Your task to perform on an android device: Toggle the flashlight Image 0: 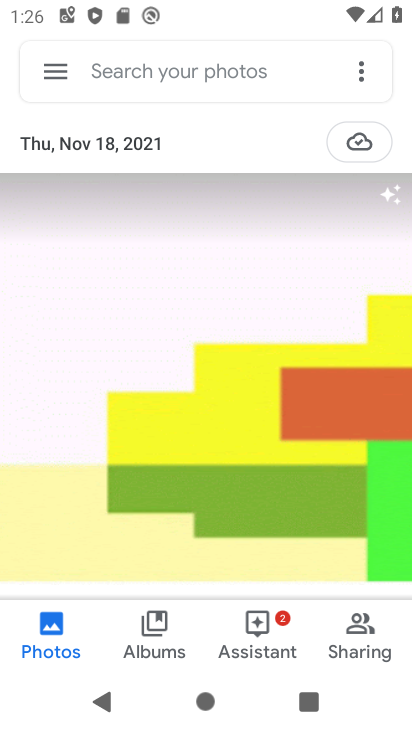
Step 0: press home button
Your task to perform on an android device: Toggle the flashlight Image 1: 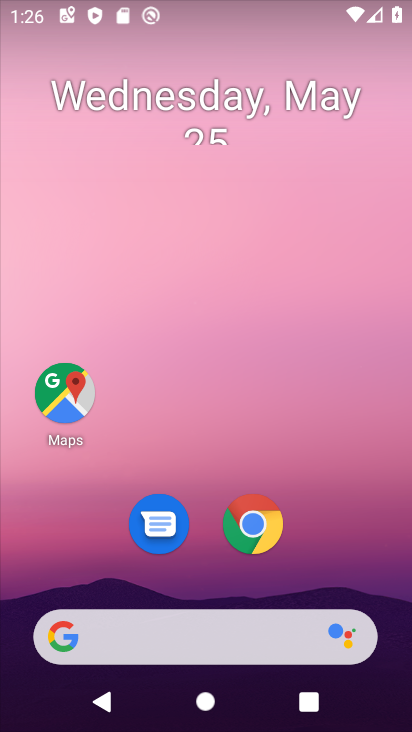
Step 1: drag from (247, 464) to (273, 36)
Your task to perform on an android device: Toggle the flashlight Image 2: 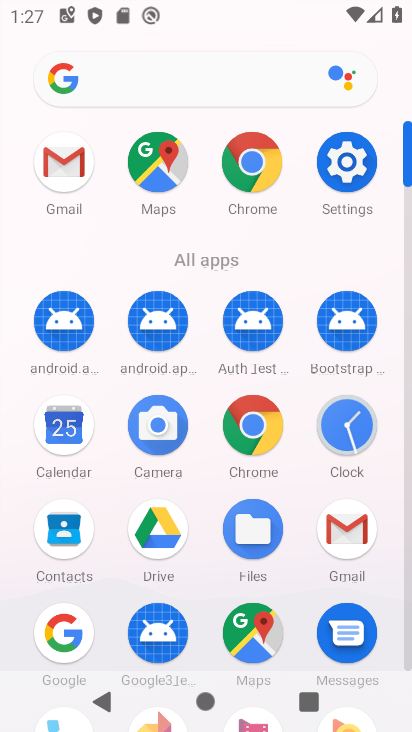
Step 2: click (341, 153)
Your task to perform on an android device: Toggle the flashlight Image 3: 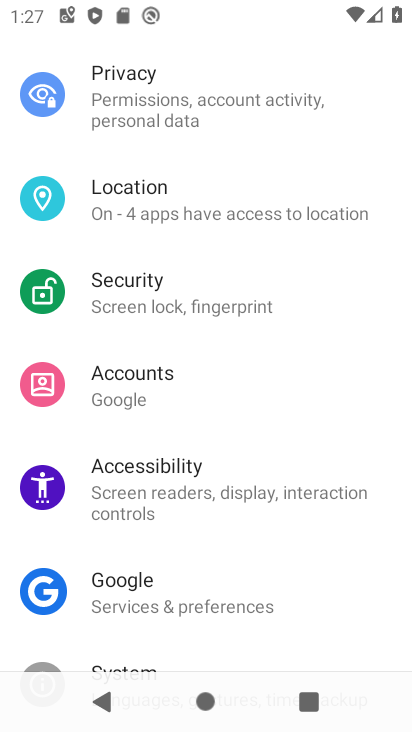
Step 3: drag from (257, 169) to (198, 654)
Your task to perform on an android device: Toggle the flashlight Image 4: 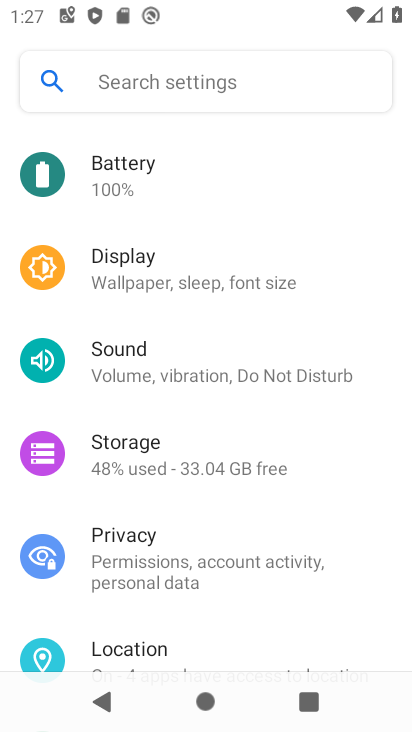
Step 4: drag from (226, 197) to (206, 609)
Your task to perform on an android device: Toggle the flashlight Image 5: 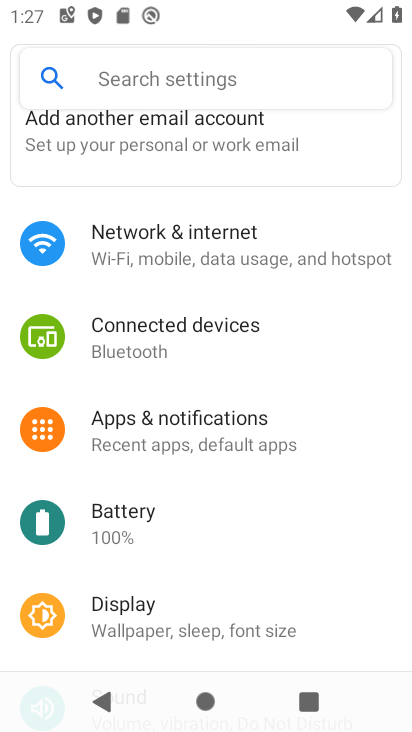
Step 5: drag from (219, 234) to (204, 511)
Your task to perform on an android device: Toggle the flashlight Image 6: 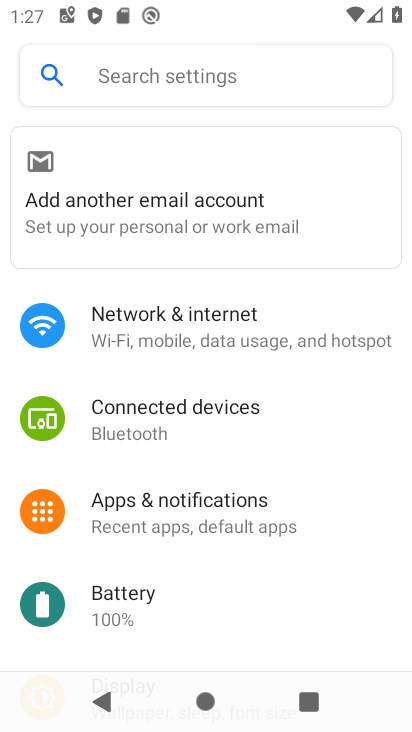
Step 6: click (231, 65)
Your task to perform on an android device: Toggle the flashlight Image 7: 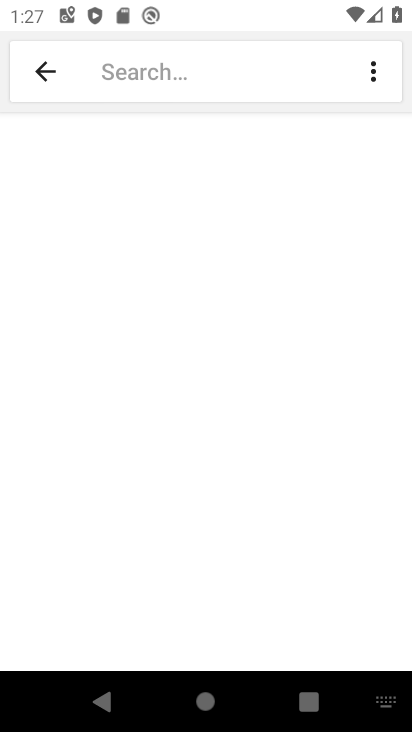
Step 7: type "Flashlight"
Your task to perform on an android device: Toggle the flashlight Image 8: 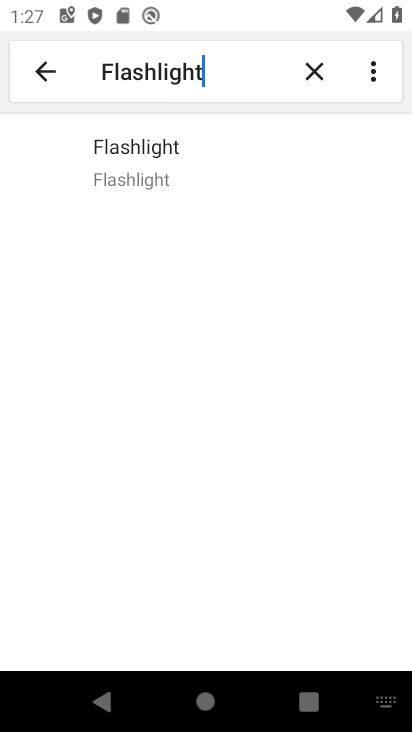
Step 8: click (149, 157)
Your task to perform on an android device: Toggle the flashlight Image 9: 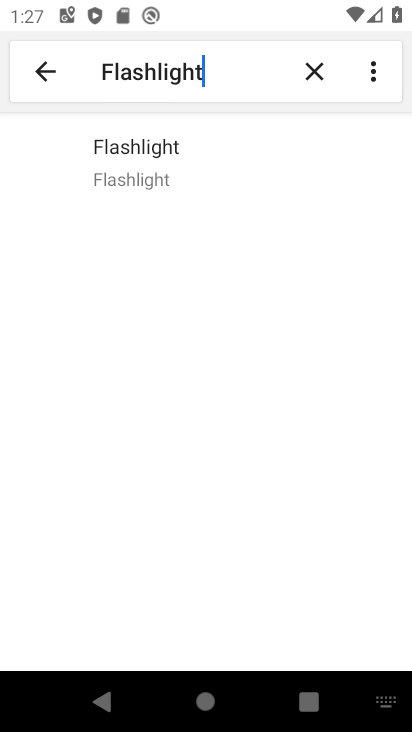
Step 9: click (149, 161)
Your task to perform on an android device: Toggle the flashlight Image 10: 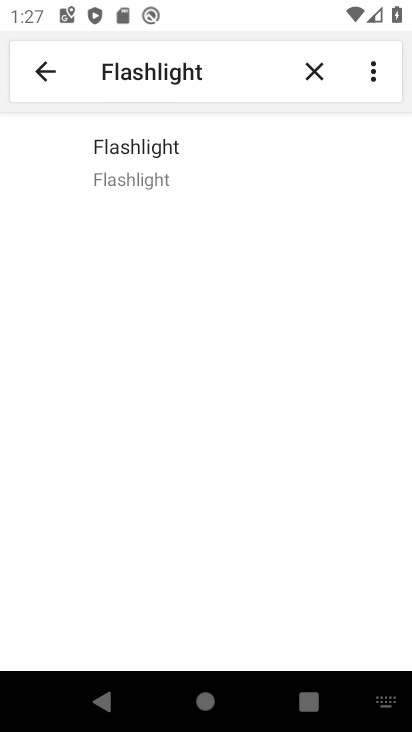
Step 10: task complete